Your task to perform on an android device: set the stopwatch Image 0: 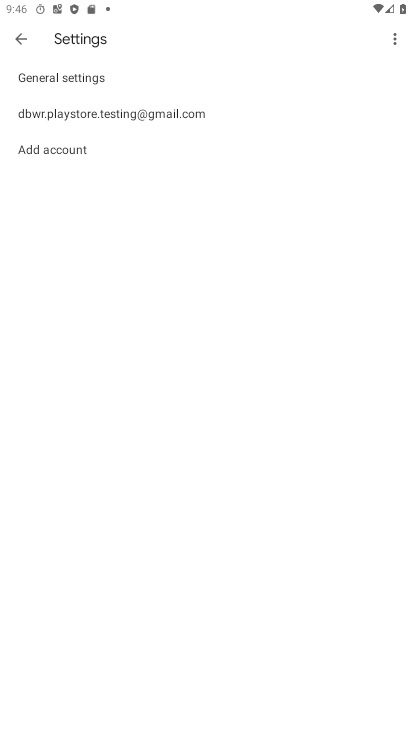
Step 0: press home button
Your task to perform on an android device: set the stopwatch Image 1: 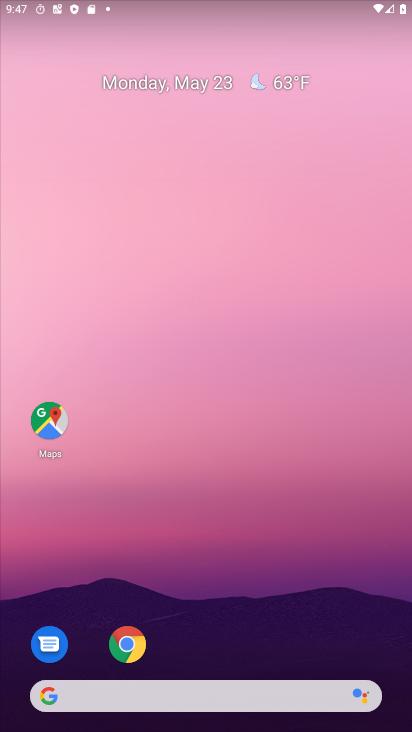
Step 1: drag from (238, 648) to (317, 102)
Your task to perform on an android device: set the stopwatch Image 2: 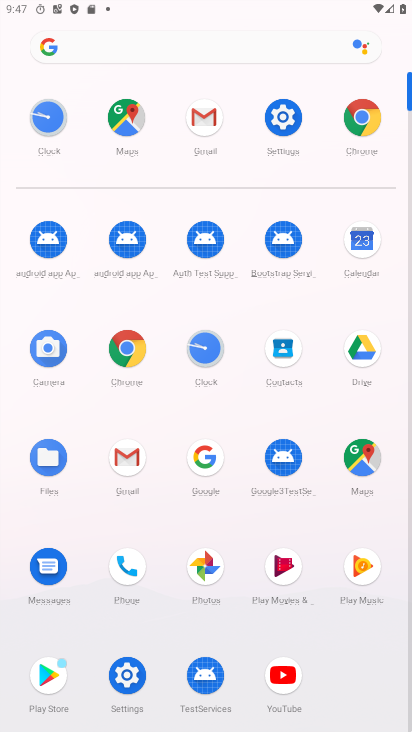
Step 2: click (204, 348)
Your task to perform on an android device: set the stopwatch Image 3: 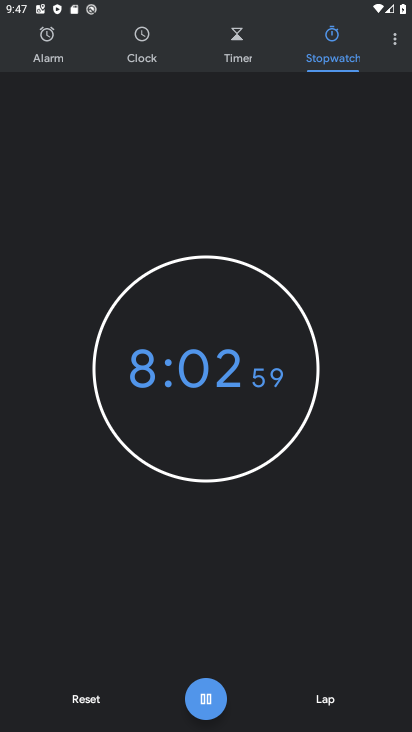
Step 3: click (88, 698)
Your task to perform on an android device: set the stopwatch Image 4: 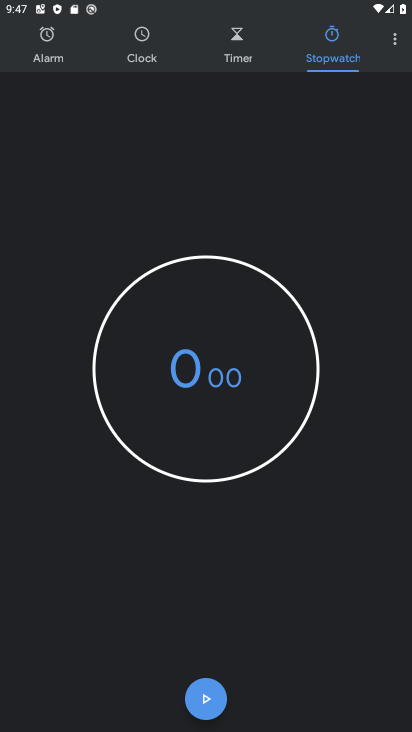
Step 4: task complete